Your task to perform on an android device: Search for seafood restaurants on Google Maps Image 0: 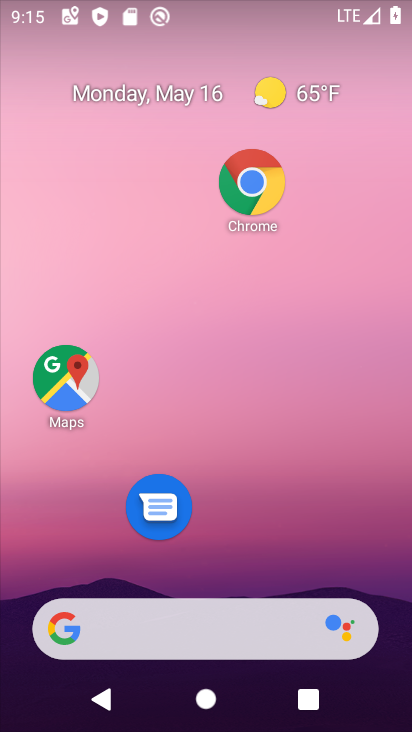
Step 0: drag from (216, 591) to (409, 16)
Your task to perform on an android device: Search for seafood restaurants on Google Maps Image 1: 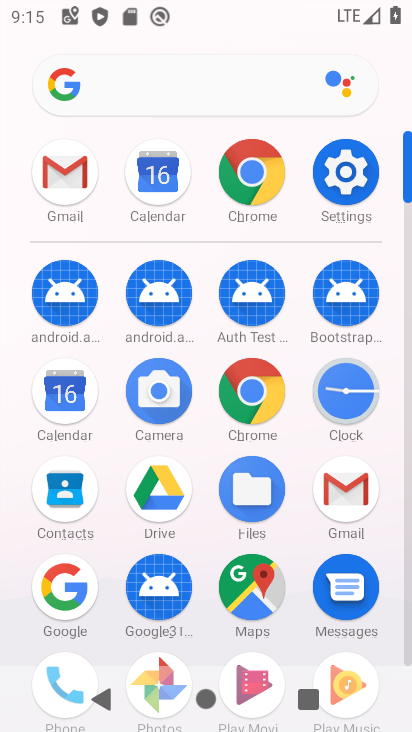
Step 1: click (254, 591)
Your task to perform on an android device: Search for seafood restaurants on Google Maps Image 2: 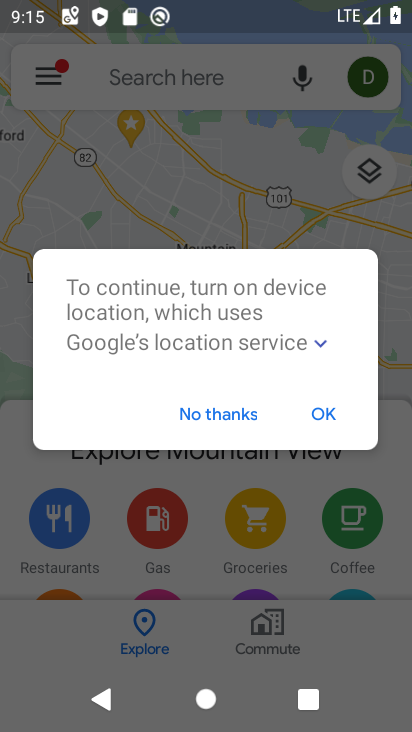
Step 2: click (159, 91)
Your task to perform on an android device: Search for seafood restaurants on Google Maps Image 3: 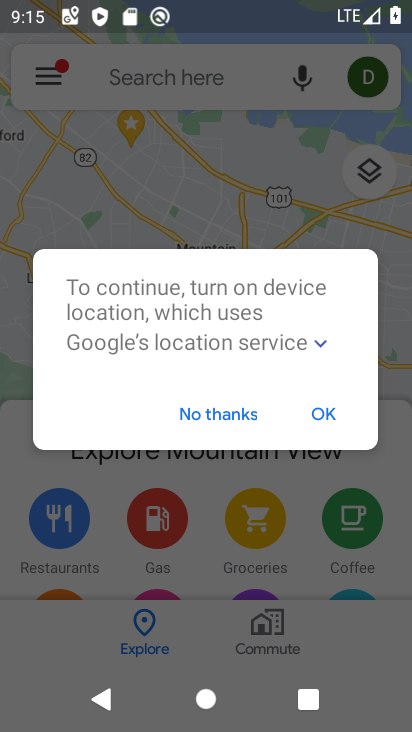
Step 3: click (237, 419)
Your task to perform on an android device: Search for seafood restaurants on Google Maps Image 4: 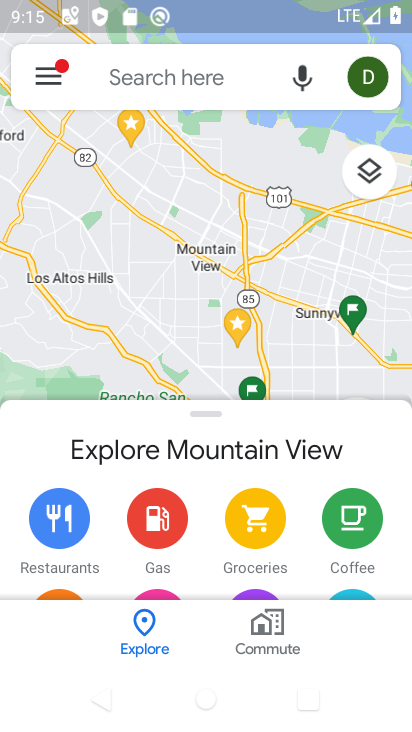
Step 4: click (191, 90)
Your task to perform on an android device: Search for seafood restaurants on Google Maps Image 5: 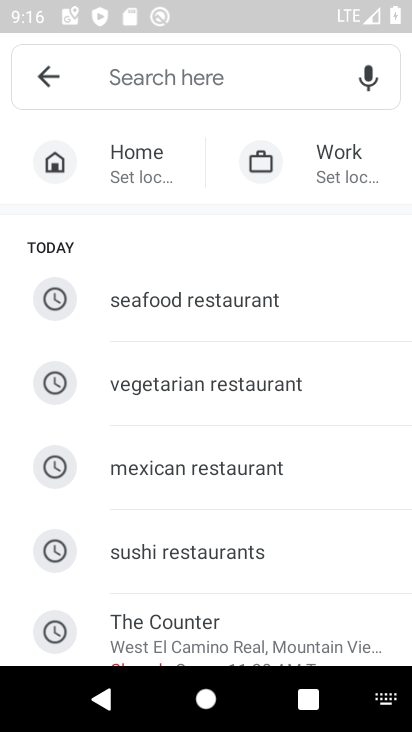
Step 5: click (165, 304)
Your task to perform on an android device: Search for seafood restaurants on Google Maps Image 6: 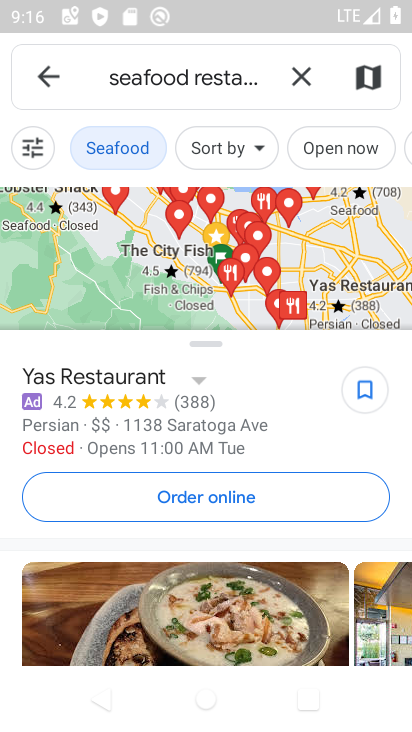
Step 6: task complete